Your task to perform on an android device: turn off sleep mode Image 0: 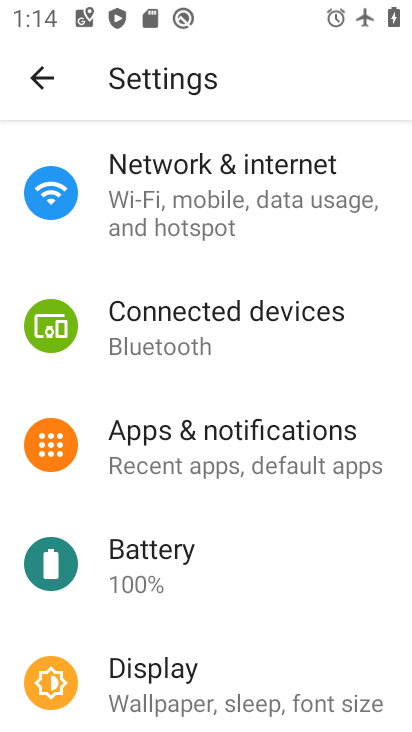
Step 0: drag from (111, 589) to (135, 277)
Your task to perform on an android device: turn off sleep mode Image 1: 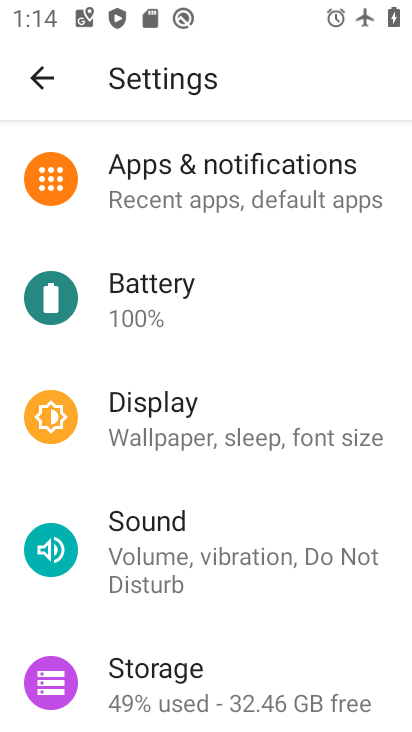
Step 1: drag from (156, 557) to (200, 206)
Your task to perform on an android device: turn off sleep mode Image 2: 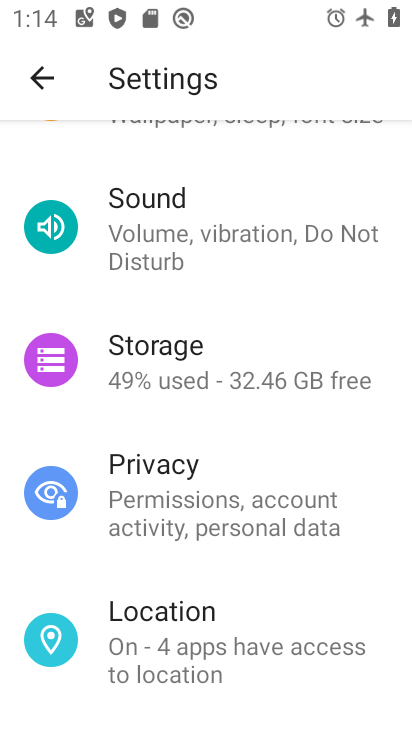
Step 2: drag from (182, 415) to (201, 651)
Your task to perform on an android device: turn off sleep mode Image 3: 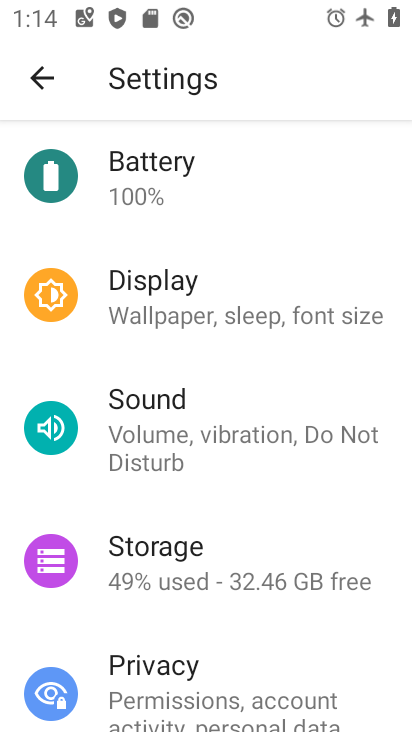
Step 3: click (262, 321)
Your task to perform on an android device: turn off sleep mode Image 4: 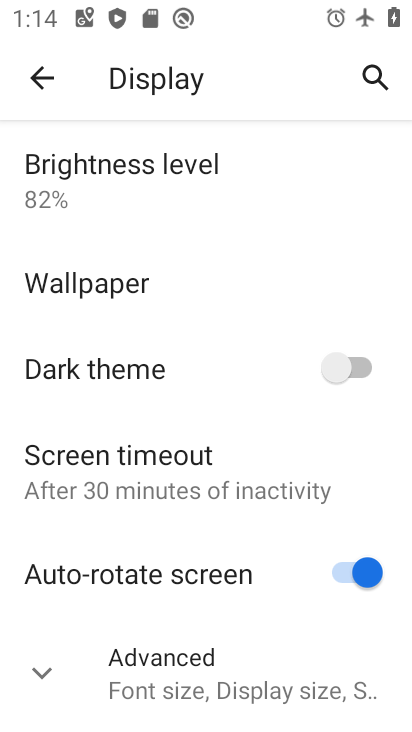
Step 4: task complete